Your task to perform on an android device: Open the calendar and show me this week's events? Image 0: 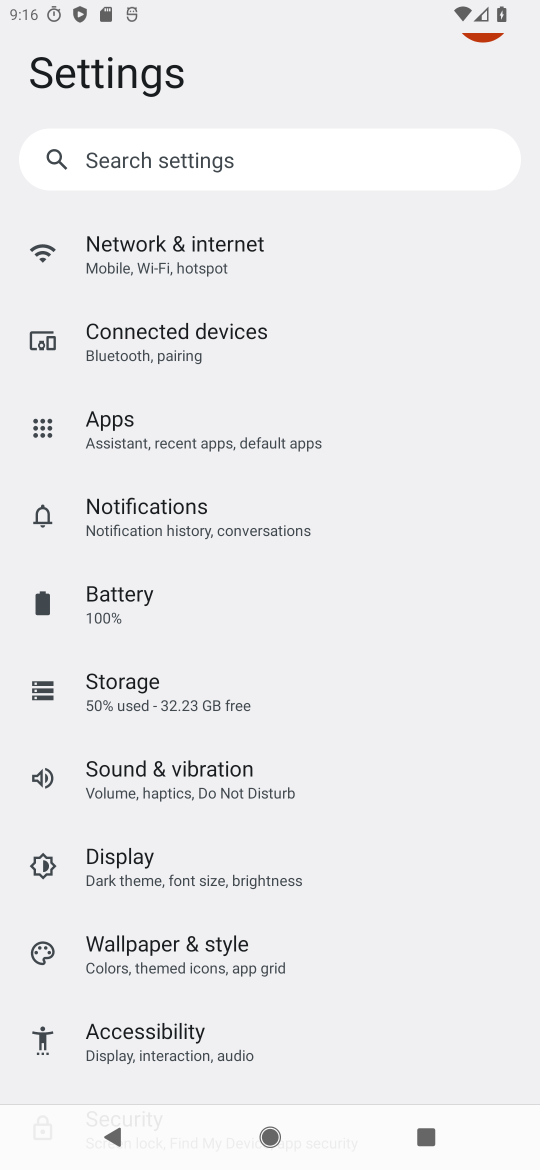
Step 0: press home button
Your task to perform on an android device: Open the calendar and show me this week's events? Image 1: 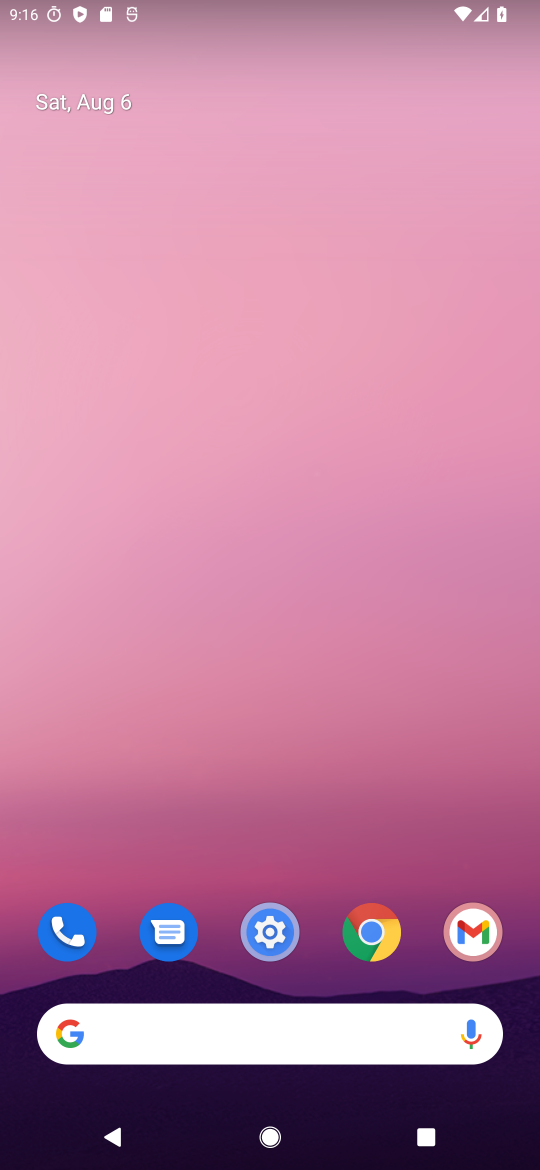
Step 1: drag from (319, 1026) to (420, 314)
Your task to perform on an android device: Open the calendar and show me this week's events? Image 2: 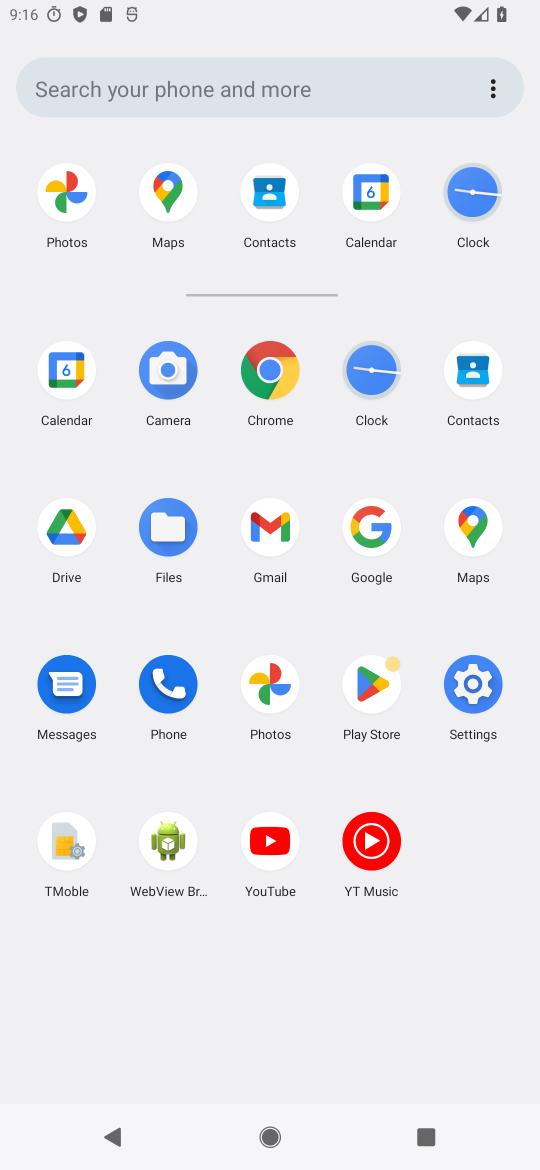
Step 2: click (366, 197)
Your task to perform on an android device: Open the calendar and show me this week's events? Image 3: 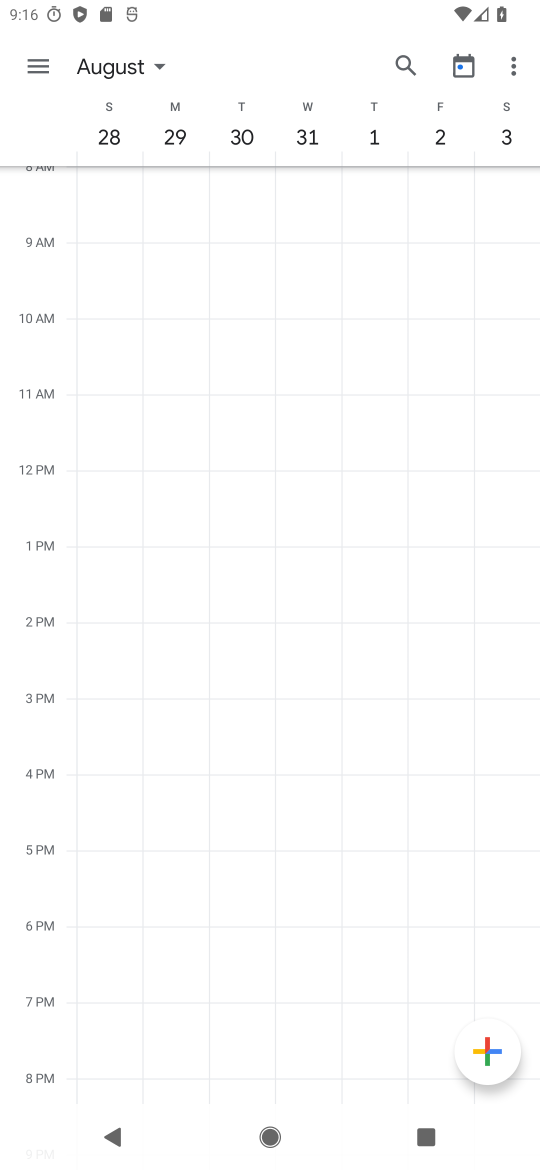
Step 3: click (89, 64)
Your task to perform on an android device: Open the calendar and show me this week's events? Image 4: 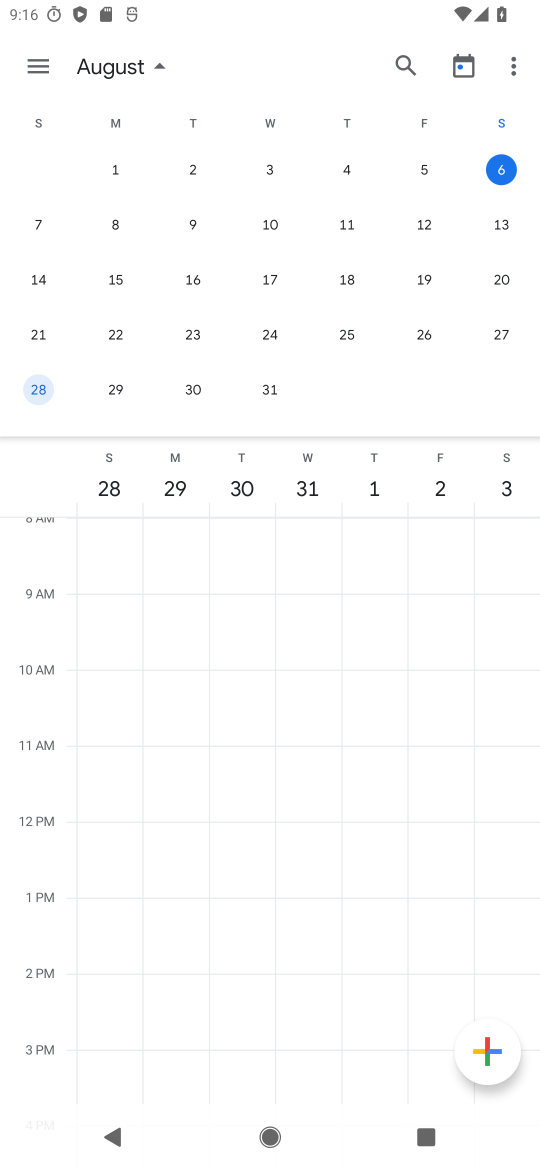
Step 4: click (503, 166)
Your task to perform on an android device: Open the calendar and show me this week's events? Image 5: 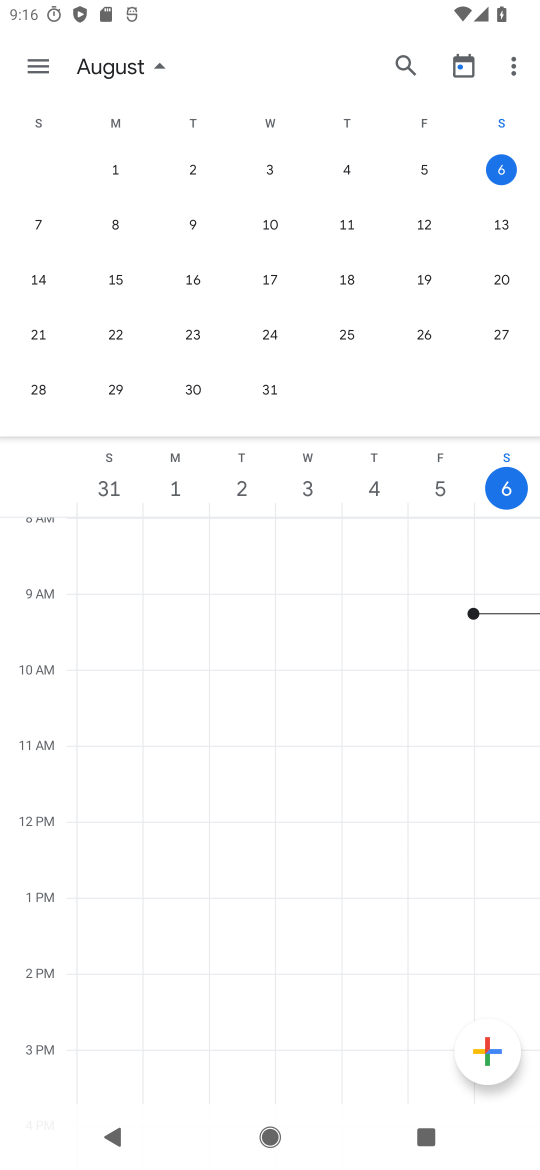
Step 5: click (38, 64)
Your task to perform on an android device: Open the calendar and show me this week's events? Image 6: 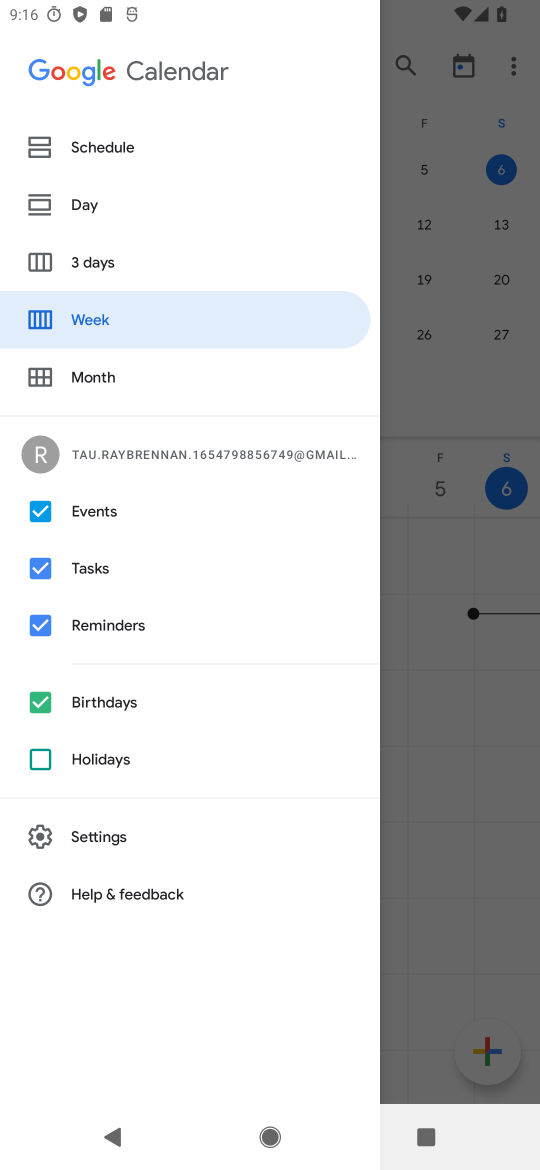
Step 6: click (113, 145)
Your task to perform on an android device: Open the calendar and show me this week's events? Image 7: 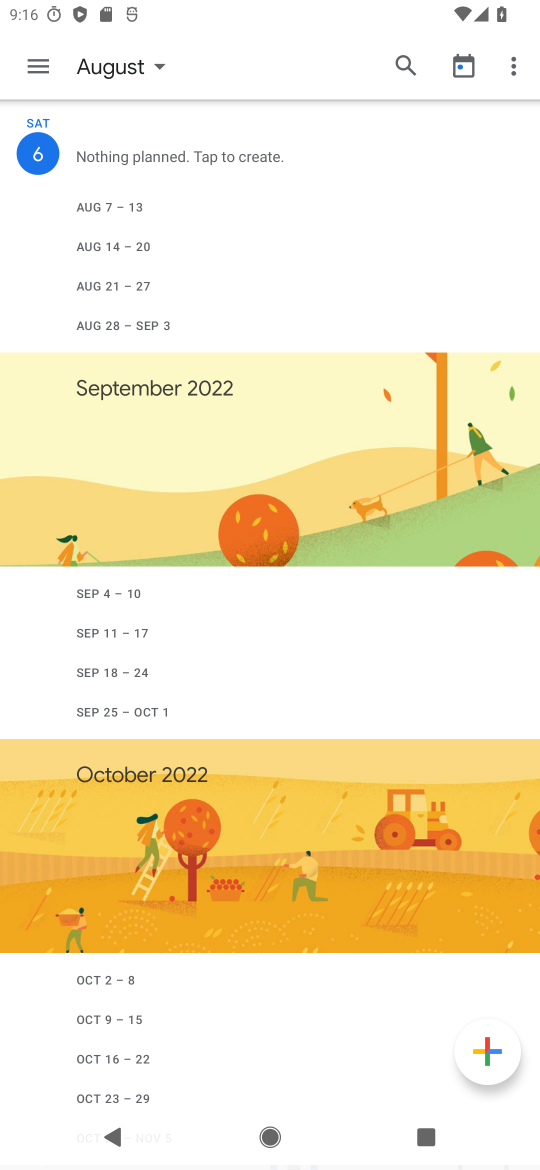
Step 7: task complete